Your task to perform on an android device: See recent photos Image 0: 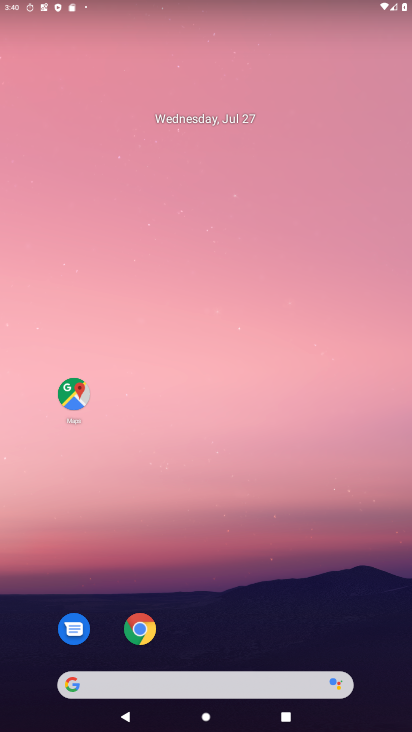
Step 0: drag from (280, 526) to (245, 89)
Your task to perform on an android device: See recent photos Image 1: 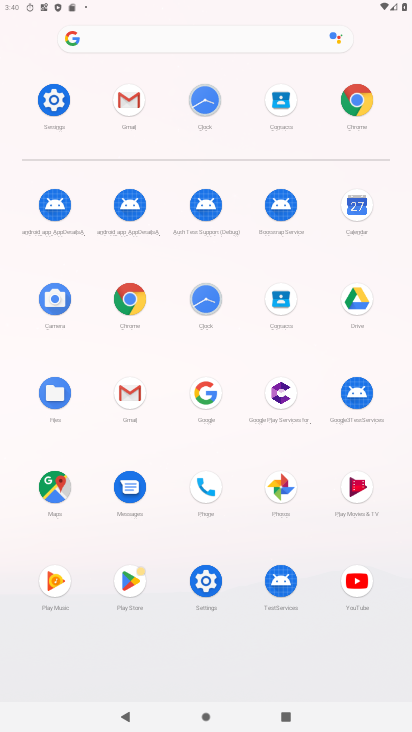
Step 1: click (280, 490)
Your task to perform on an android device: See recent photos Image 2: 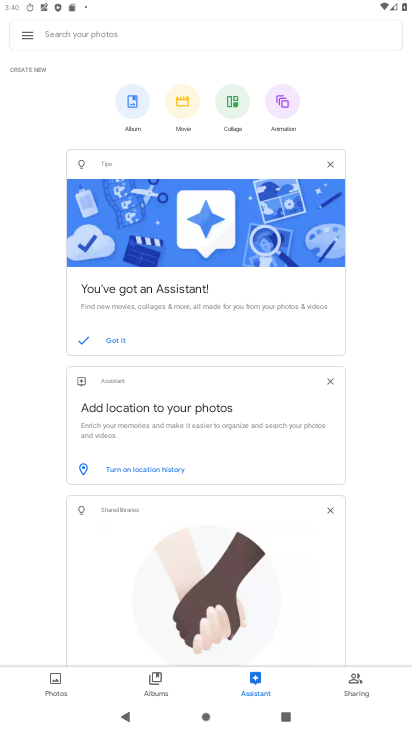
Step 2: click (48, 674)
Your task to perform on an android device: See recent photos Image 3: 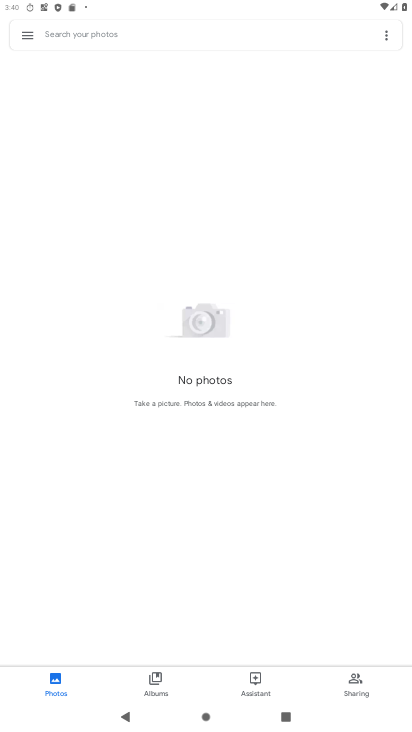
Step 3: task complete